Your task to perform on an android device: What's on my calendar today? Image 0: 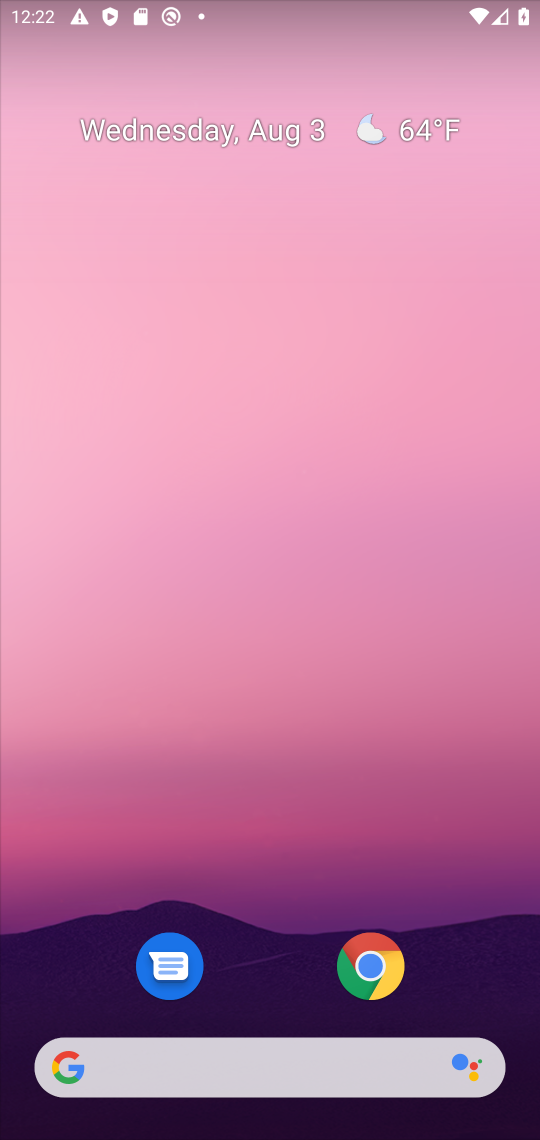
Step 0: drag from (255, 935) to (242, 104)
Your task to perform on an android device: What's on my calendar today? Image 1: 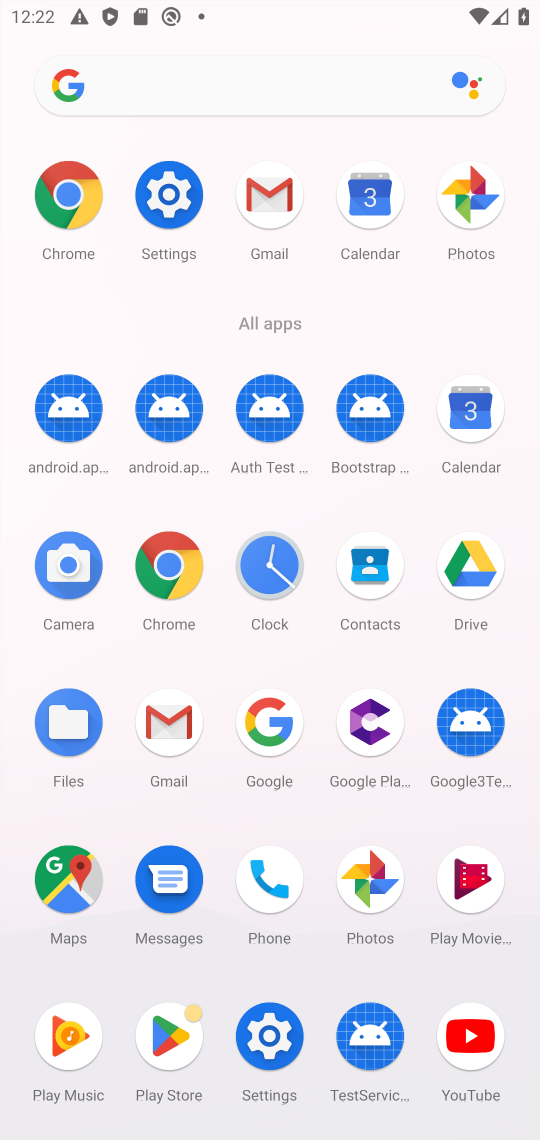
Step 1: click (481, 445)
Your task to perform on an android device: What's on my calendar today? Image 2: 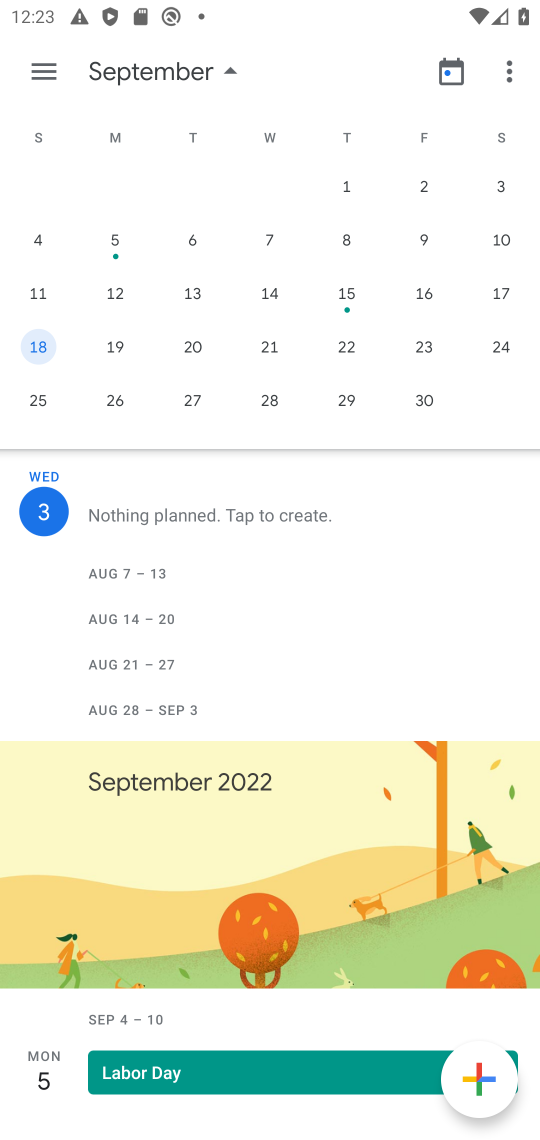
Step 2: drag from (87, 268) to (485, 277)
Your task to perform on an android device: What's on my calendar today? Image 3: 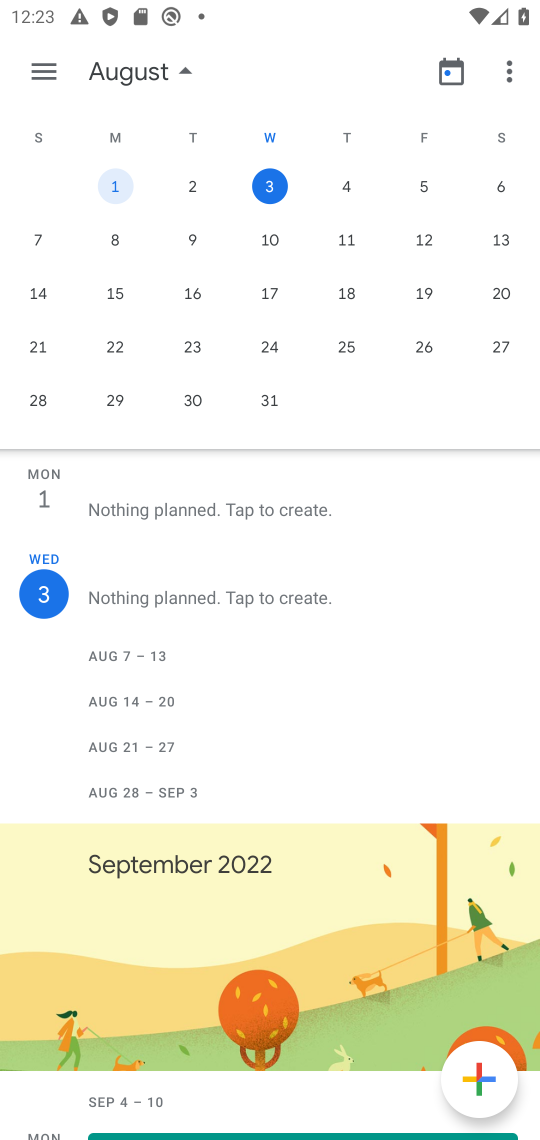
Step 3: click (273, 189)
Your task to perform on an android device: What's on my calendar today? Image 4: 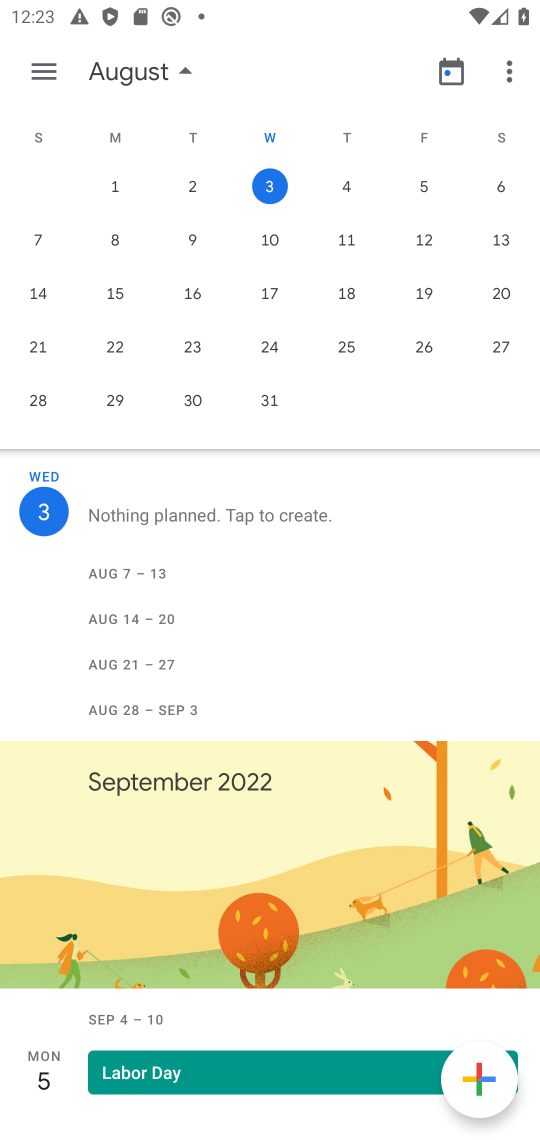
Step 4: task complete